Your task to perform on an android device: turn smart compose on in the gmail app Image 0: 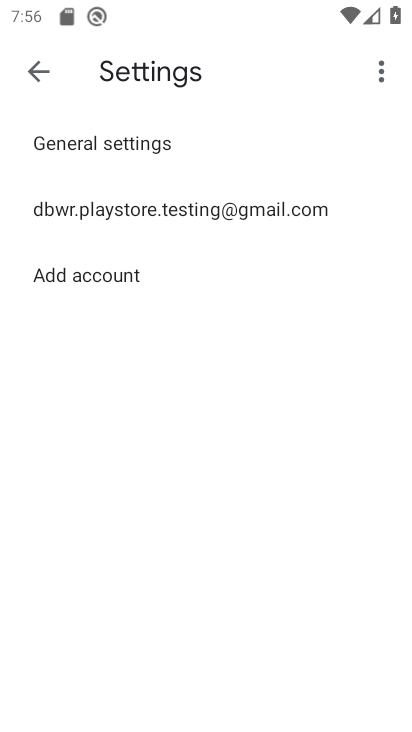
Step 0: click (96, 211)
Your task to perform on an android device: turn smart compose on in the gmail app Image 1: 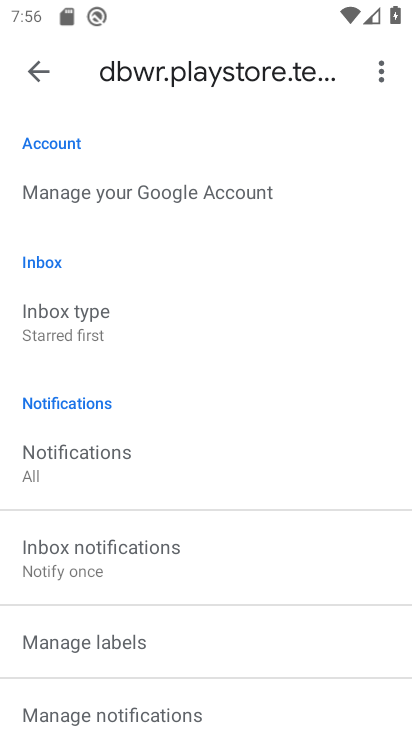
Step 1: task complete